Your task to perform on an android device: Go to CNN.com Image 0: 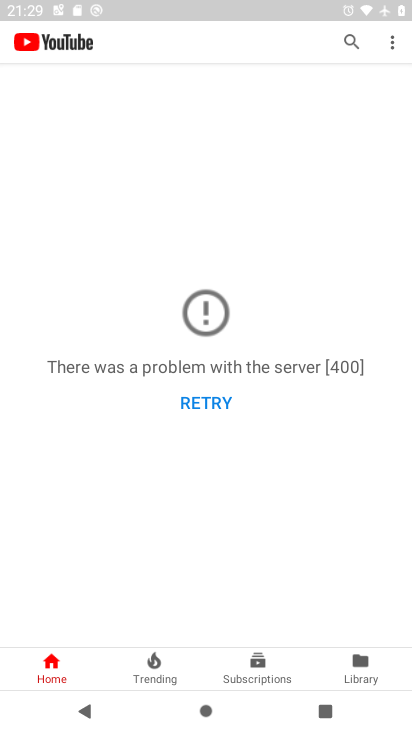
Step 0: press home button
Your task to perform on an android device: Go to CNN.com Image 1: 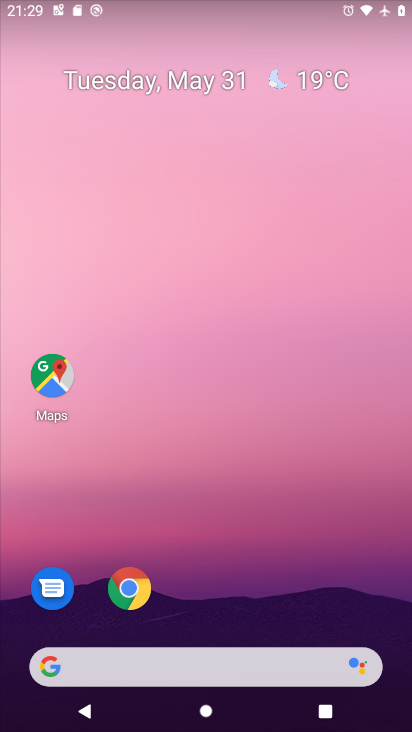
Step 1: click (131, 600)
Your task to perform on an android device: Go to CNN.com Image 2: 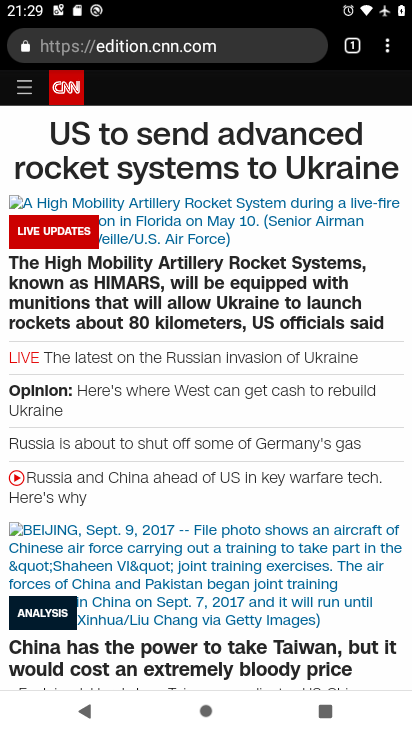
Step 2: task complete